Your task to perform on an android device: Add "logitech g903" to the cart on amazon, then select checkout. Image 0: 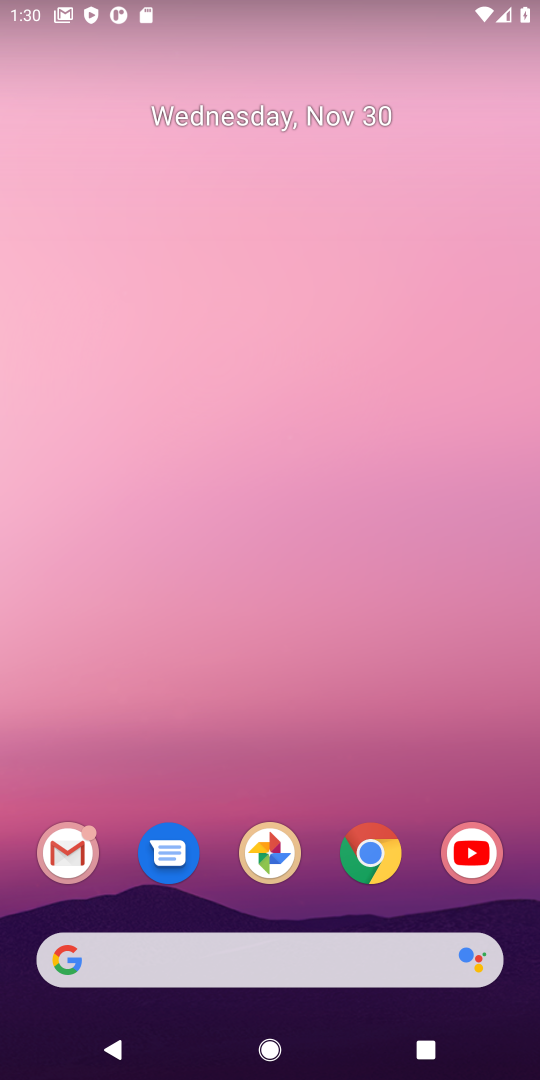
Step 0: click (365, 860)
Your task to perform on an android device: Add "logitech g903" to the cart on amazon, then select checkout. Image 1: 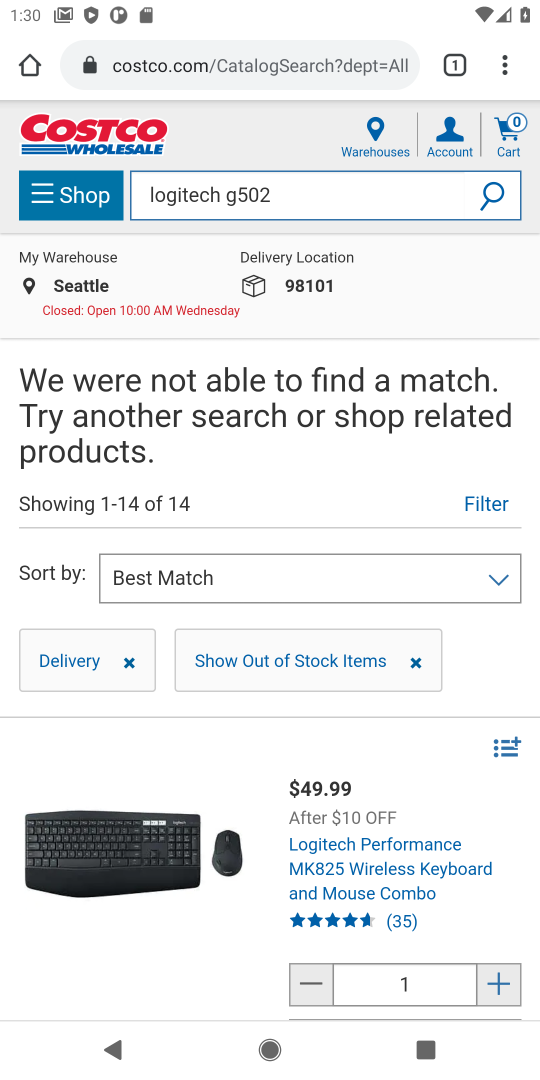
Step 1: click (237, 57)
Your task to perform on an android device: Add "logitech g903" to the cart on amazon, then select checkout. Image 2: 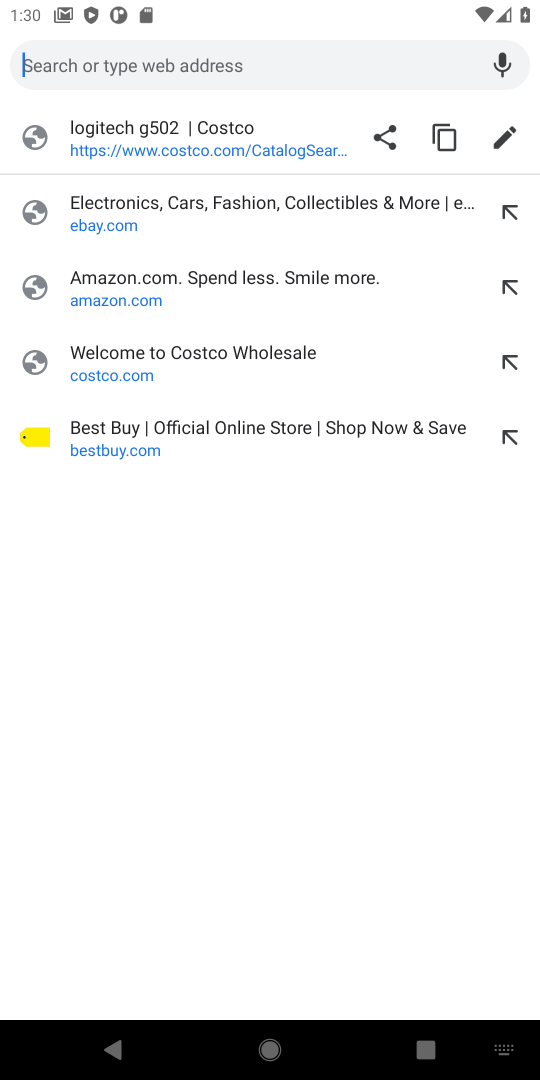
Step 2: click (122, 295)
Your task to perform on an android device: Add "logitech g903" to the cart on amazon, then select checkout. Image 3: 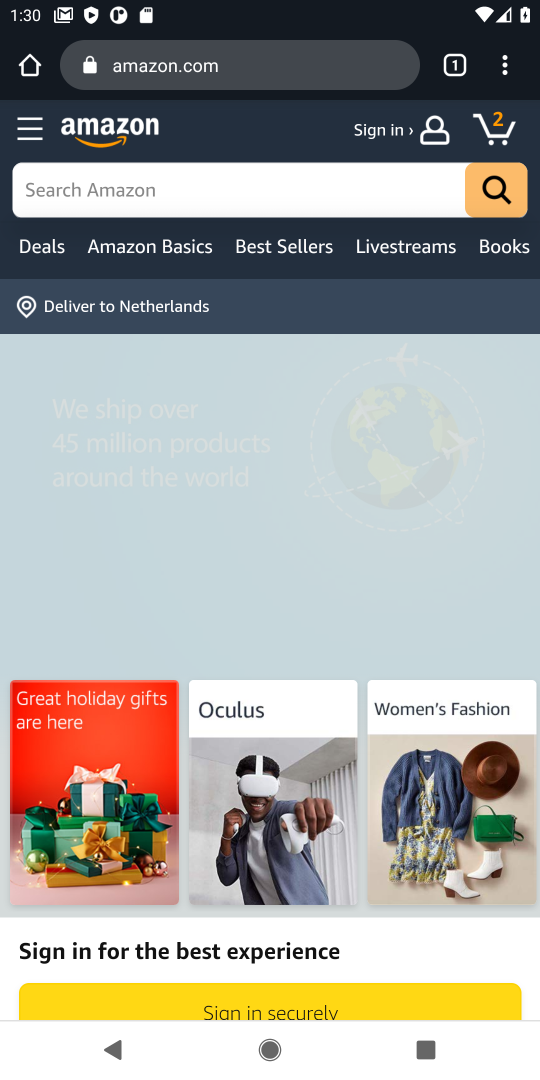
Step 3: click (147, 185)
Your task to perform on an android device: Add "logitech g903" to the cart on amazon, then select checkout. Image 4: 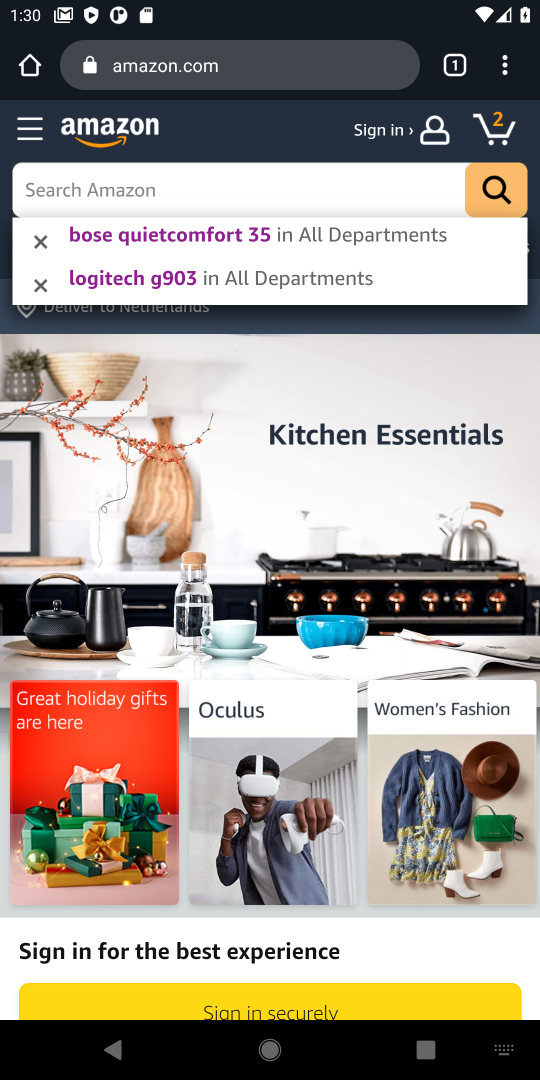
Step 4: type "logitech g903"
Your task to perform on an android device: Add "logitech g903" to the cart on amazon, then select checkout. Image 5: 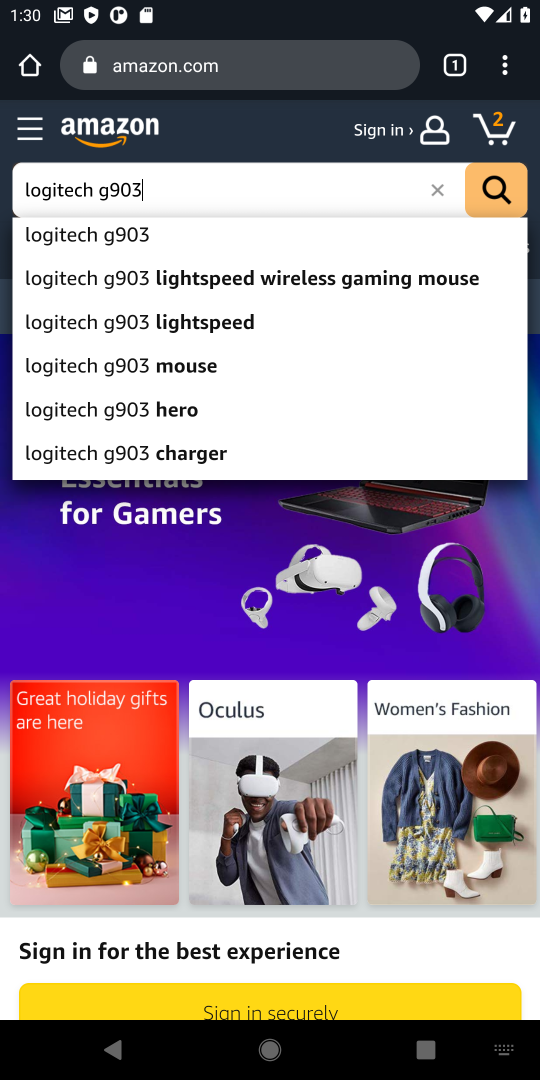
Step 5: click (119, 244)
Your task to perform on an android device: Add "logitech g903" to the cart on amazon, then select checkout. Image 6: 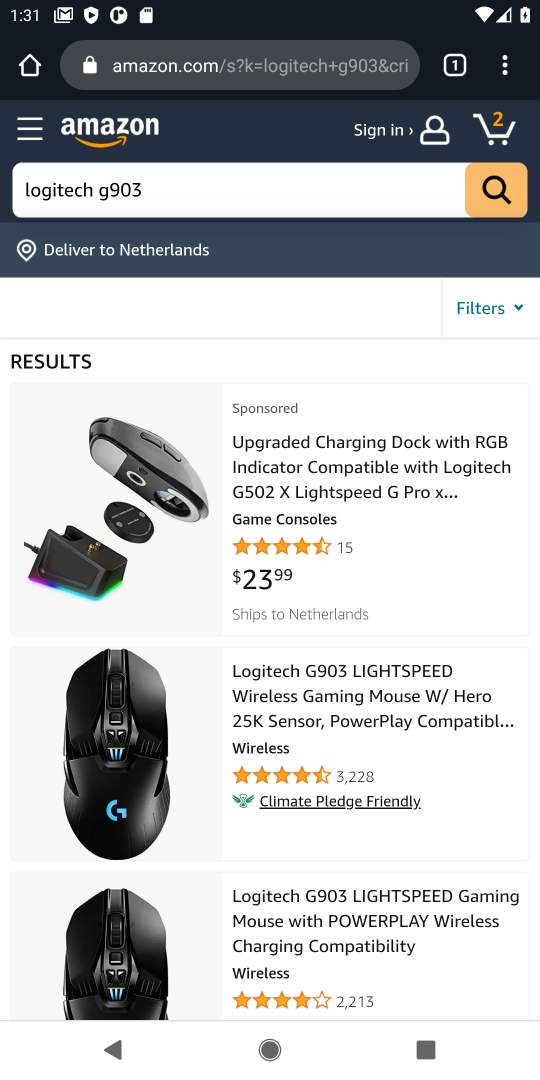
Step 6: click (290, 721)
Your task to perform on an android device: Add "logitech g903" to the cart on amazon, then select checkout. Image 7: 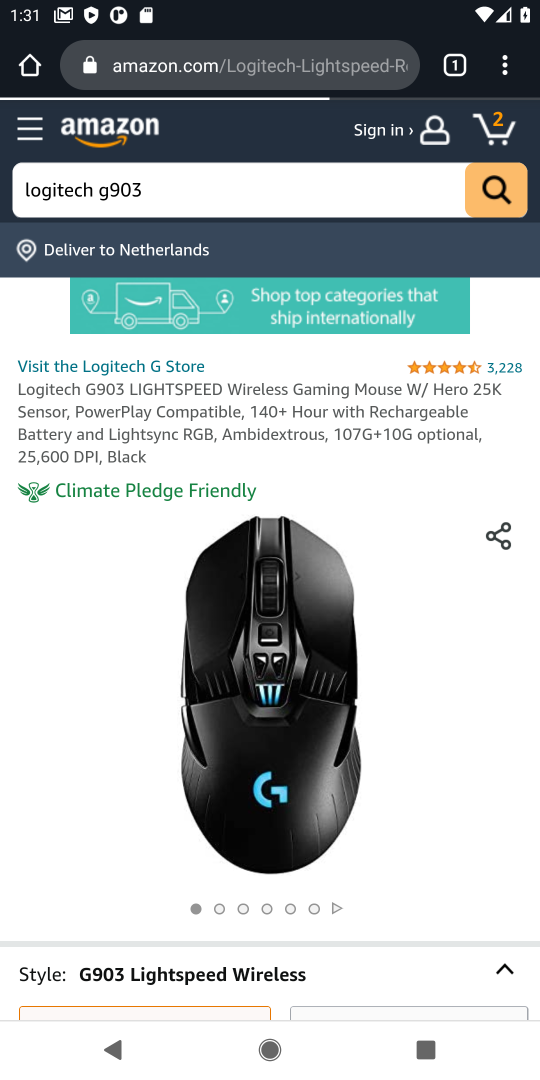
Step 7: drag from (409, 692) to (415, 205)
Your task to perform on an android device: Add "logitech g903" to the cart on amazon, then select checkout. Image 8: 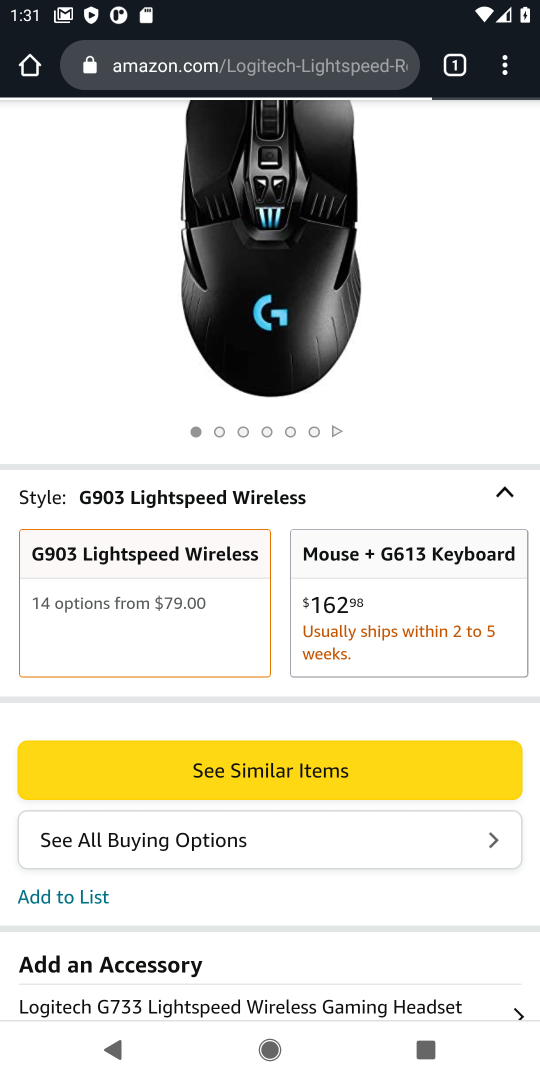
Step 8: press back button
Your task to perform on an android device: Add "logitech g903" to the cart on amazon, then select checkout. Image 9: 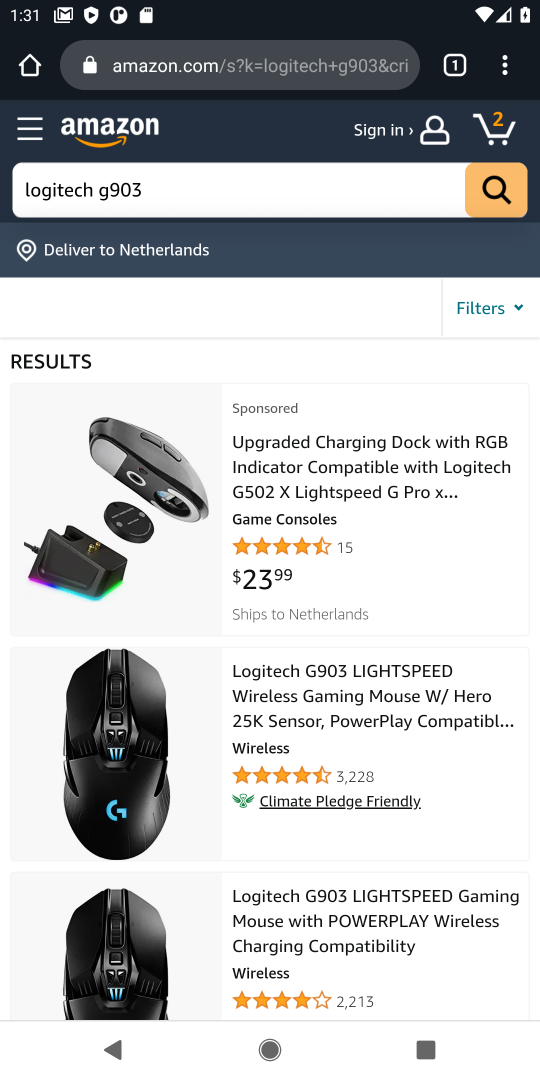
Step 9: drag from (306, 757) to (320, 525)
Your task to perform on an android device: Add "logitech g903" to the cart on amazon, then select checkout. Image 10: 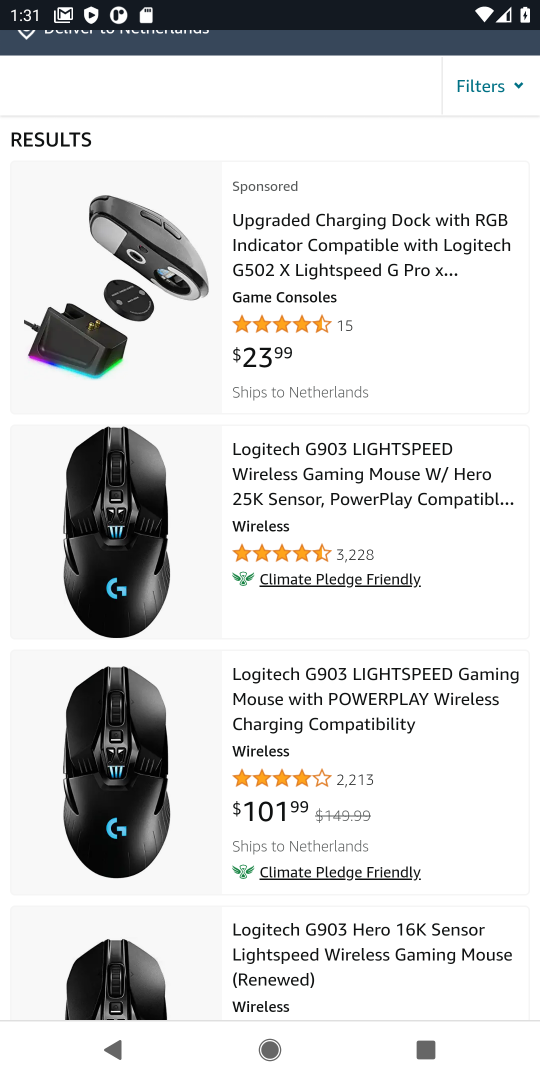
Step 10: click (273, 726)
Your task to perform on an android device: Add "logitech g903" to the cart on amazon, then select checkout. Image 11: 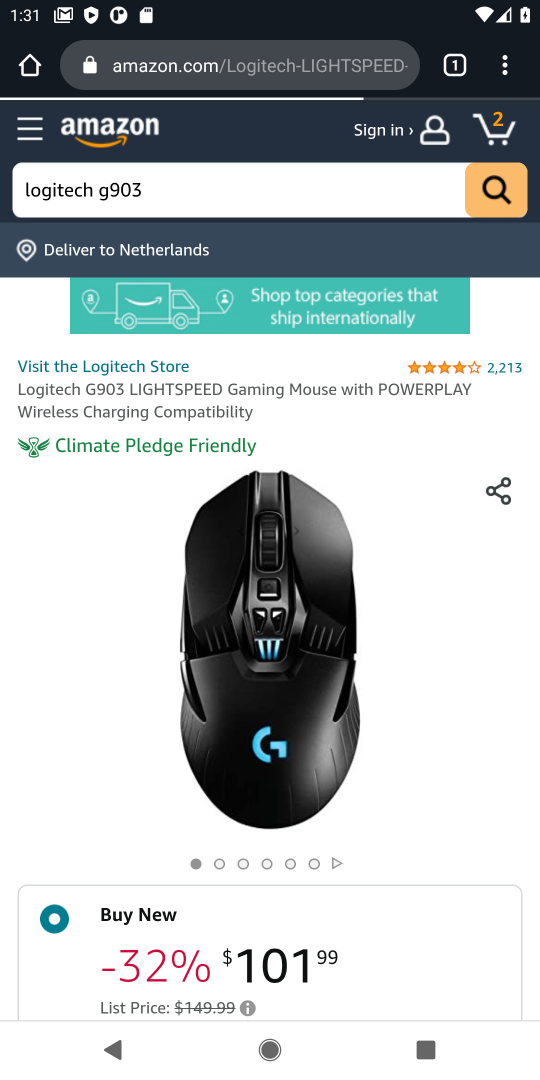
Step 11: drag from (413, 860) to (414, 547)
Your task to perform on an android device: Add "logitech g903" to the cart on amazon, then select checkout. Image 12: 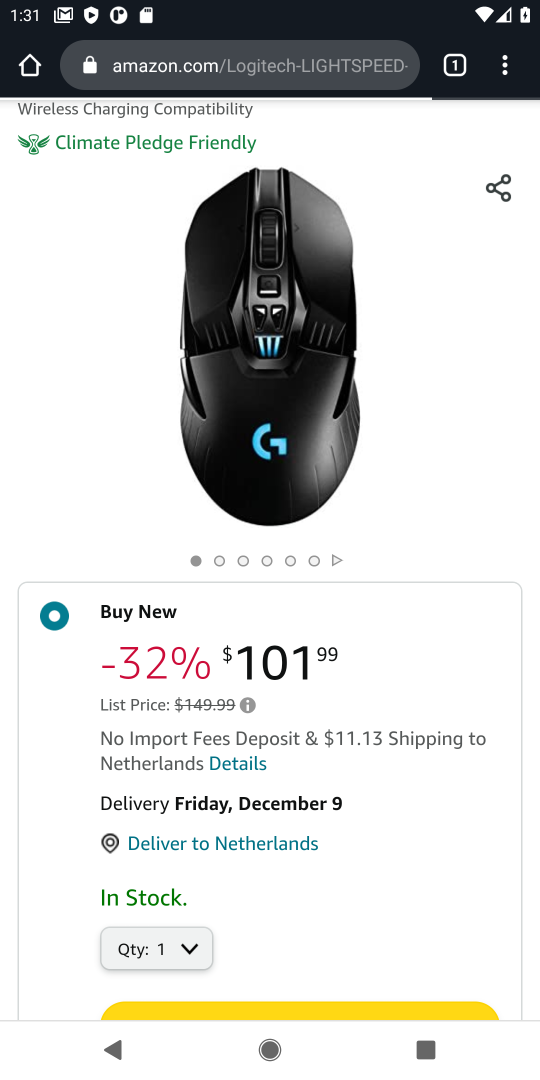
Step 12: drag from (404, 856) to (402, 501)
Your task to perform on an android device: Add "logitech g903" to the cart on amazon, then select checkout. Image 13: 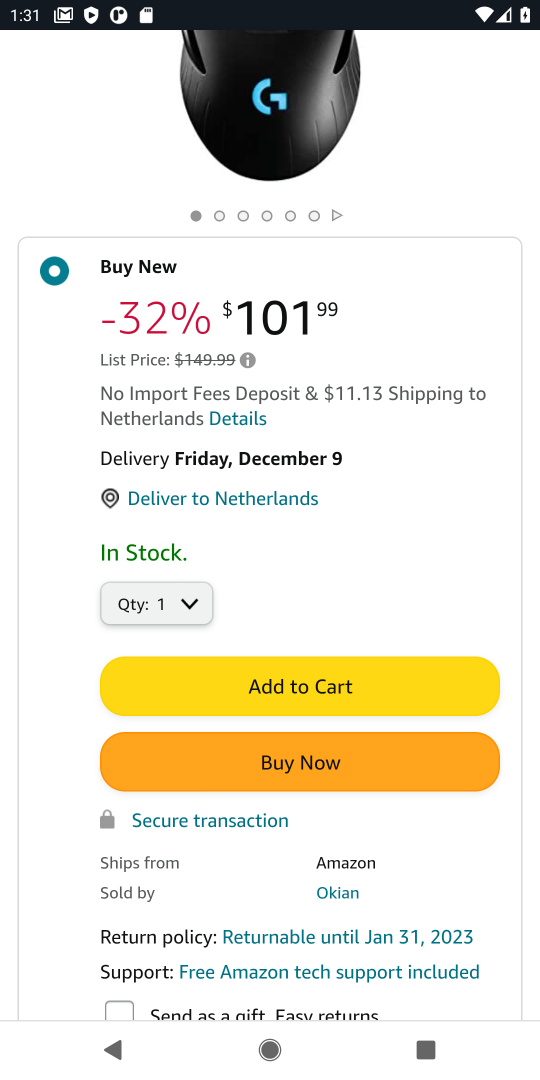
Step 13: click (263, 680)
Your task to perform on an android device: Add "logitech g903" to the cart on amazon, then select checkout. Image 14: 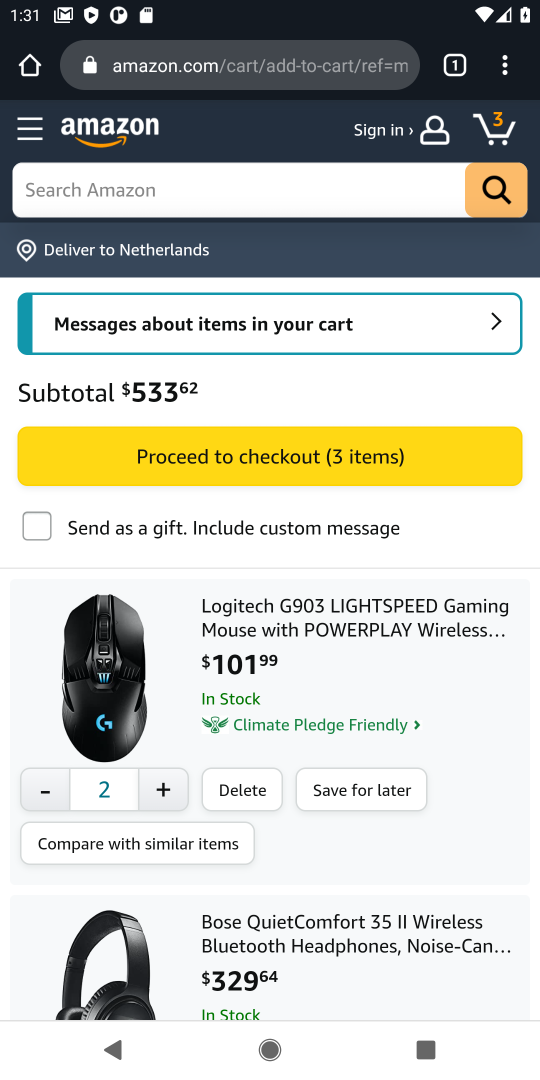
Step 14: click (266, 458)
Your task to perform on an android device: Add "logitech g903" to the cart on amazon, then select checkout. Image 15: 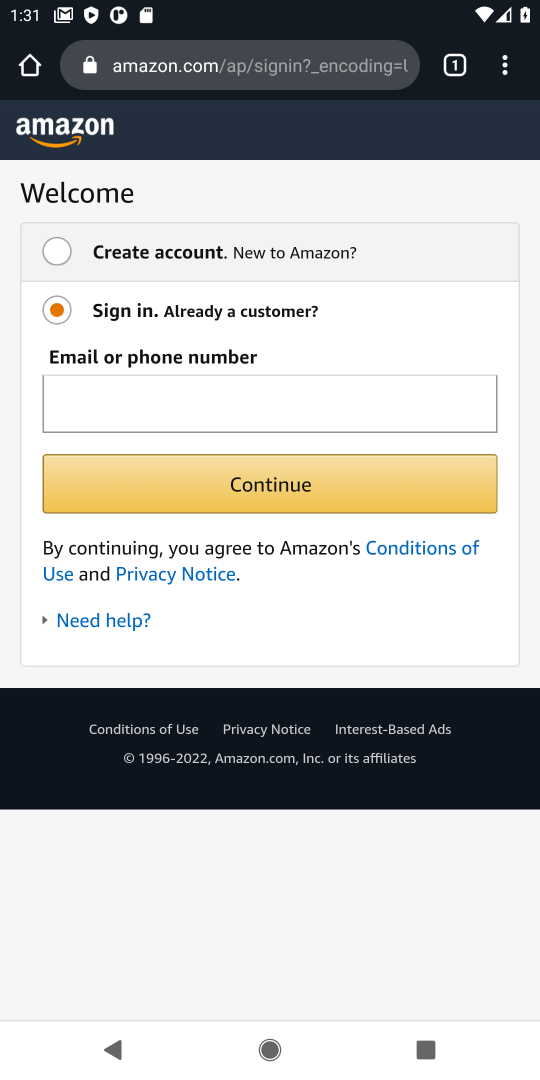
Step 15: task complete